Your task to perform on an android device: Go to internet settings Image 0: 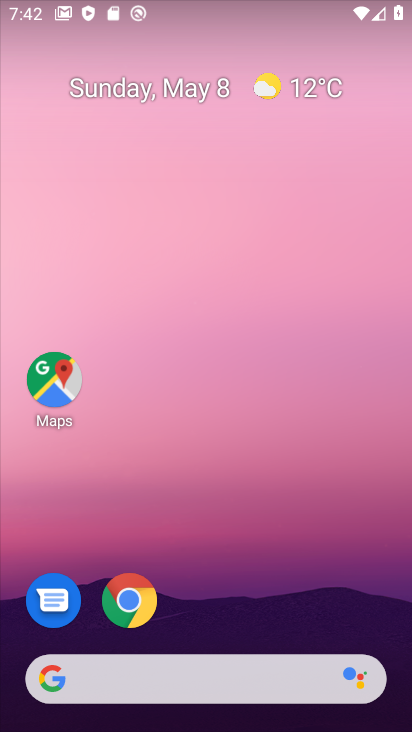
Step 0: drag from (262, 624) to (198, 83)
Your task to perform on an android device: Go to internet settings Image 1: 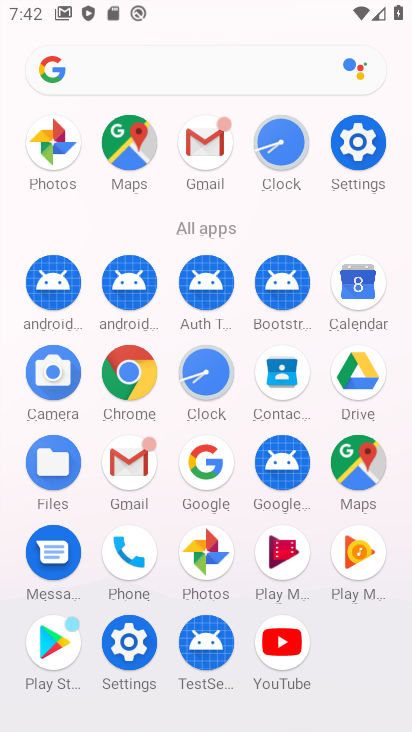
Step 1: click (359, 154)
Your task to perform on an android device: Go to internet settings Image 2: 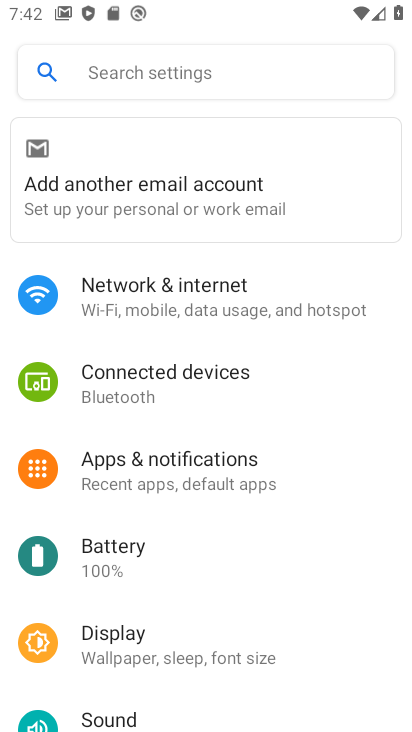
Step 2: click (102, 299)
Your task to perform on an android device: Go to internet settings Image 3: 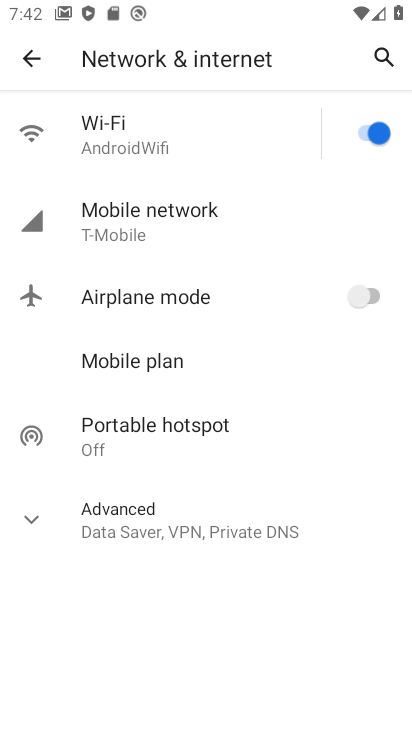
Step 3: click (163, 222)
Your task to perform on an android device: Go to internet settings Image 4: 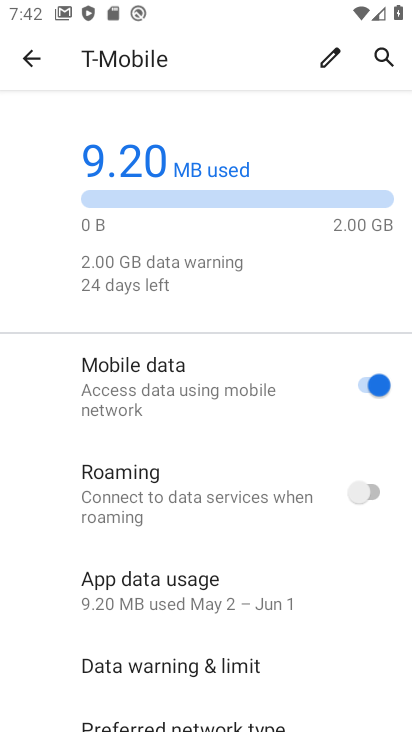
Step 4: task complete